Your task to perform on an android device: What's the weather? Image 0: 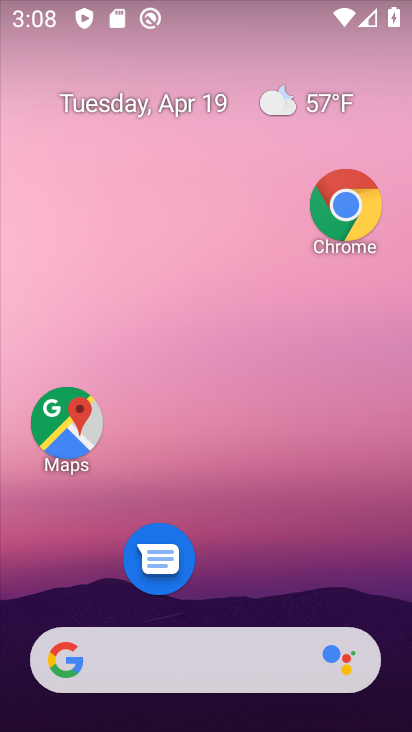
Step 0: drag from (149, 620) to (152, 184)
Your task to perform on an android device: What's the weather? Image 1: 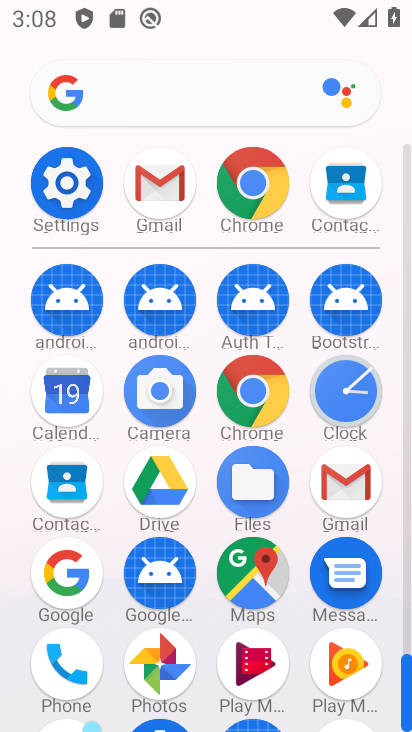
Step 1: click (255, 393)
Your task to perform on an android device: What's the weather? Image 2: 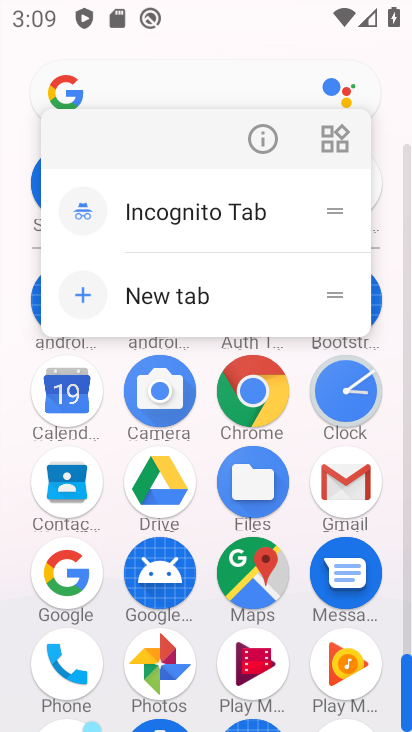
Step 2: click (256, 383)
Your task to perform on an android device: What's the weather? Image 3: 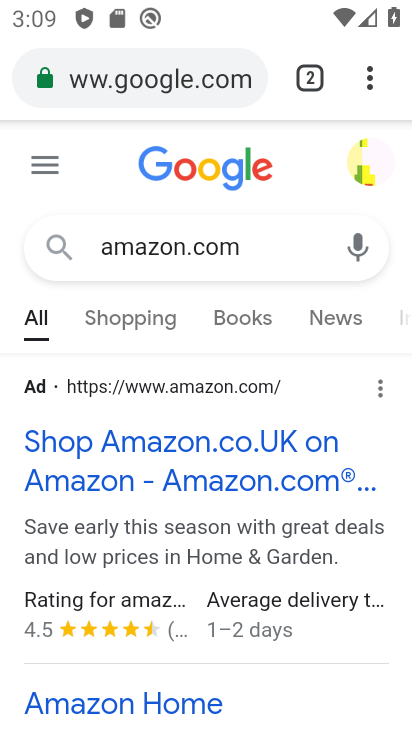
Step 3: click (265, 255)
Your task to perform on an android device: What's the weather? Image 4: 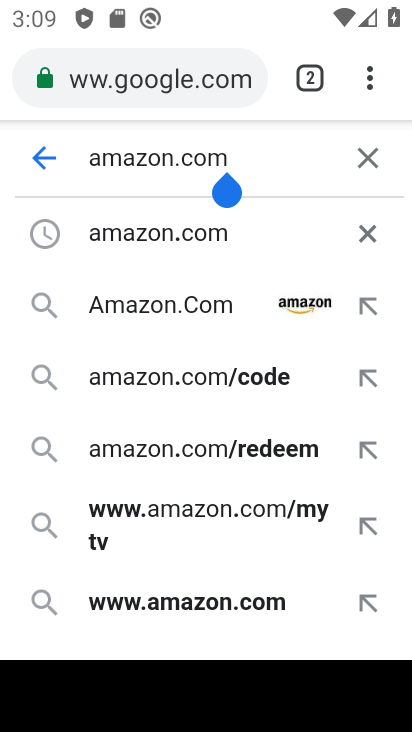
Step 4: click (368, 168)
Your task to perform on an android device: What's the weather? Image 5: 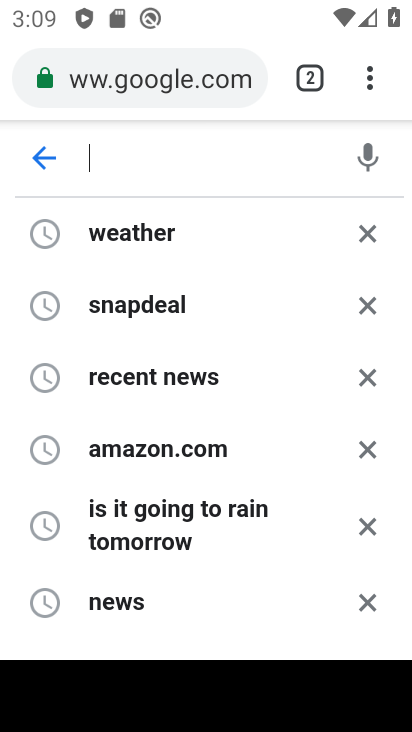
Step 5: type "weather"
Your task to perform on an android device: What's the weather? Image 6: 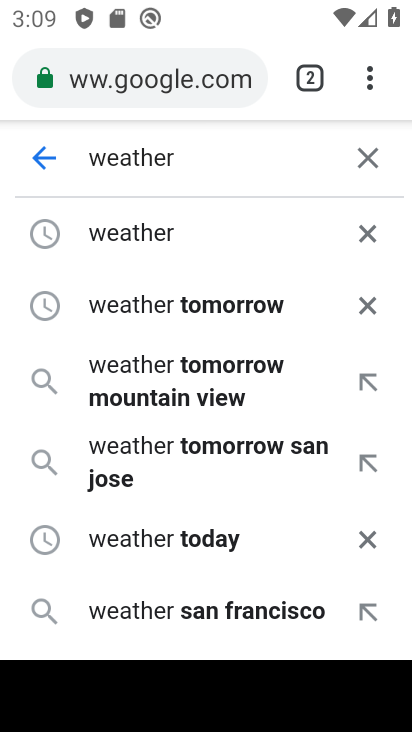
Step 6: click (118, 227)
Your task to perform on an android device: What's the weather? Image 7: 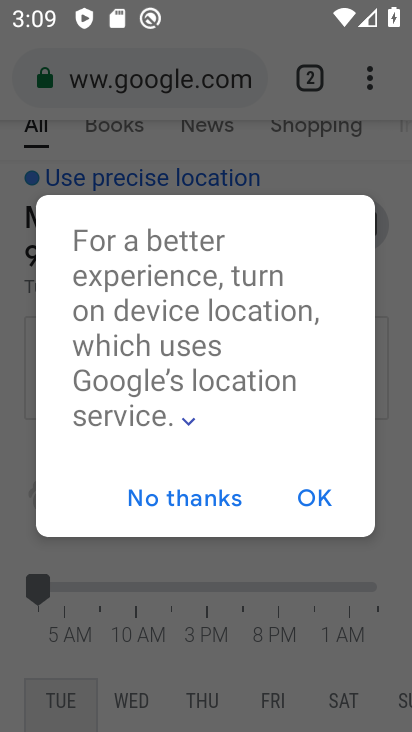
Step 7: task complete